Your task to perform on an android device: install app "Google Play services" Image 0: 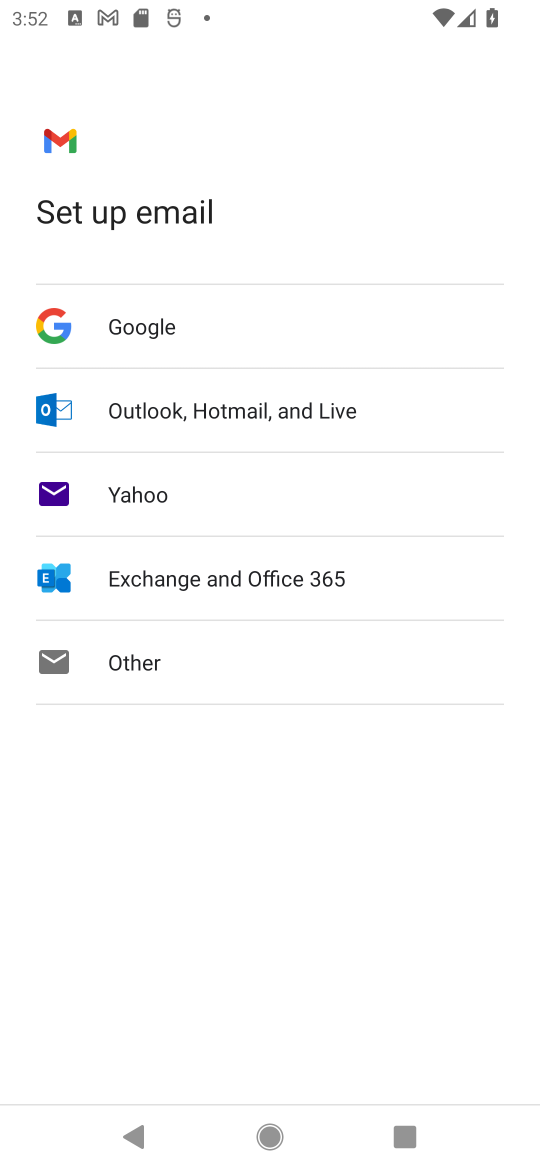
Step 0: press home button
Your task to perform on an android device: install app "Google Play services" Image 1: 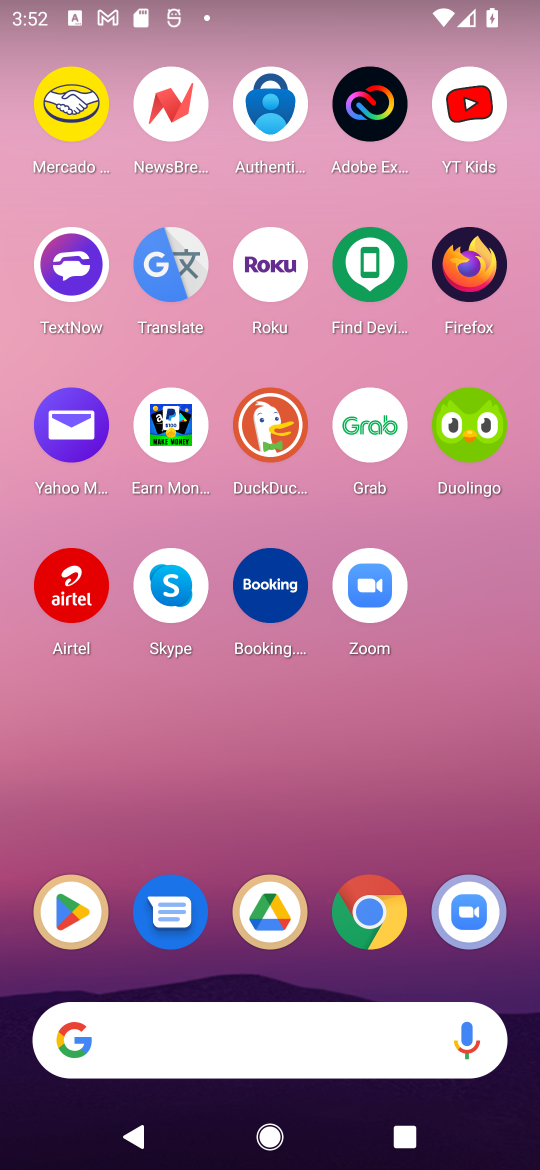
Step 1: click (70, 902)
Your task to perform on an android device: install app "Google Play services" Image 2: 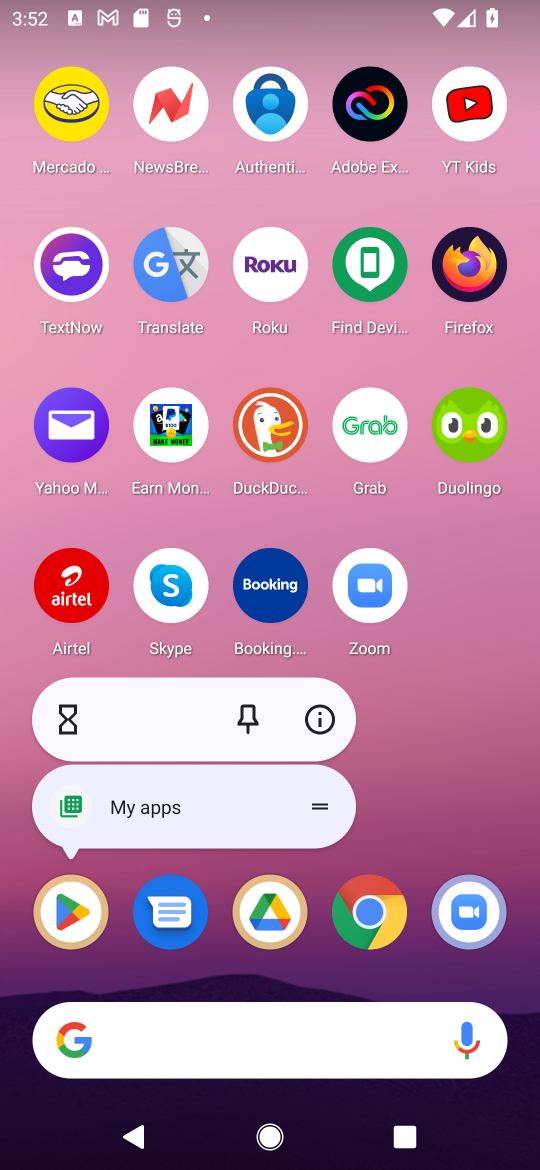
Step 2: click (70, 911)
Your task to perform on an android device: install app "Google Play services" Image 3: 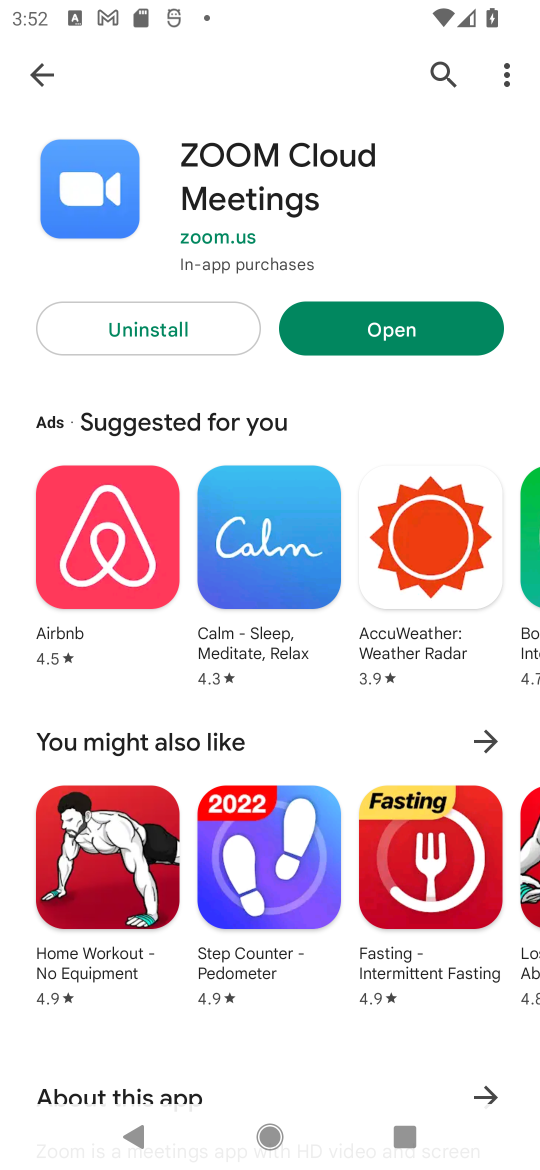
Step 3: click (436, 65)
Your task to perform on an android device: install app "Google Play services" Image 4: 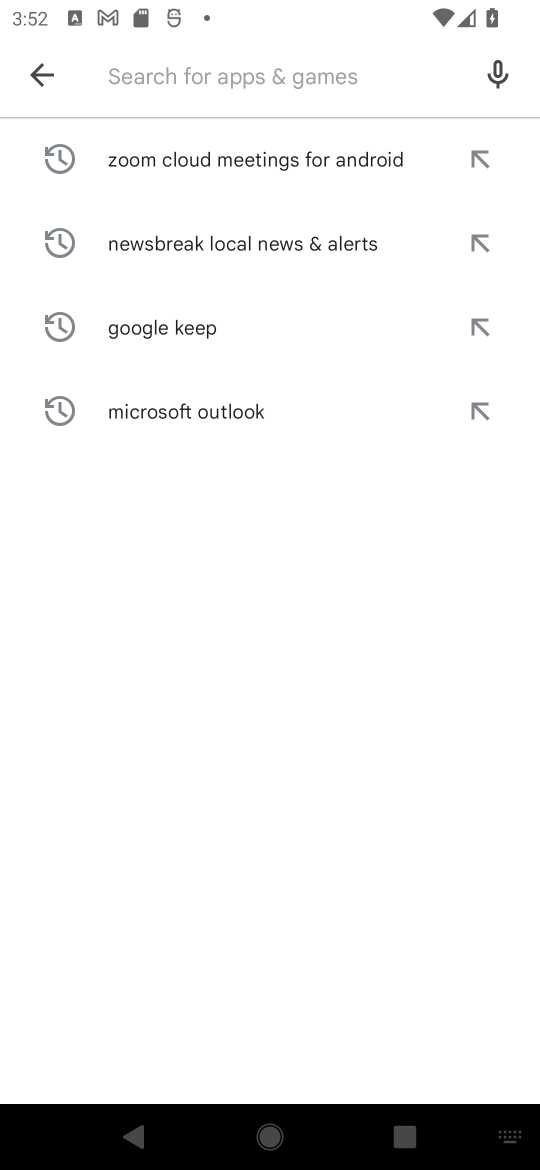
Step 4: click (393, 89)
Your task to perform on an android device: install app "Google Play services" Image 5: 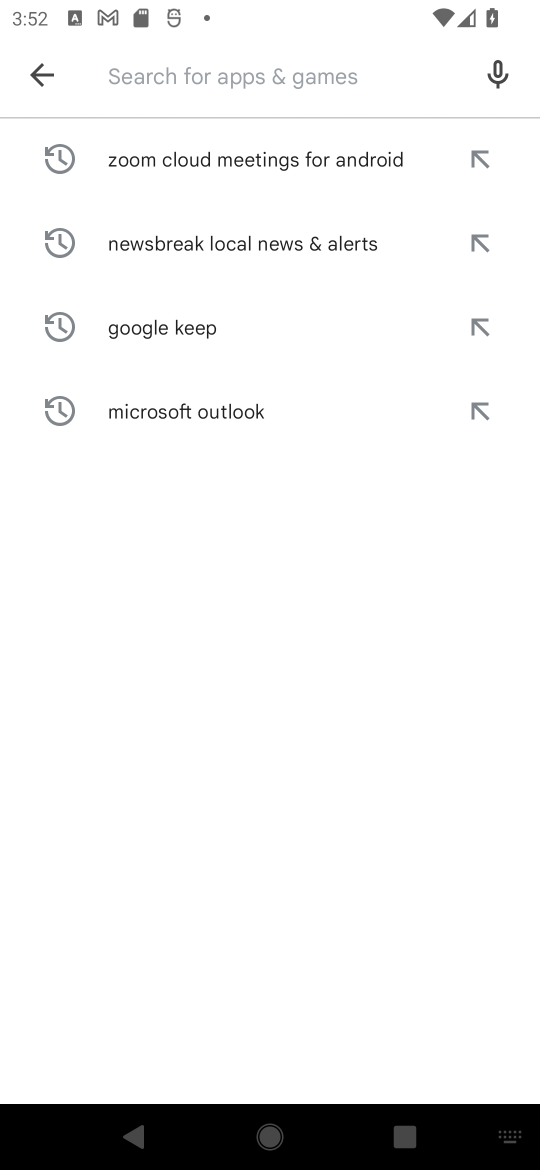
Step 5: type "Google Play services"
Your task to perform on an android device: install app "Google Play services" Image 6: 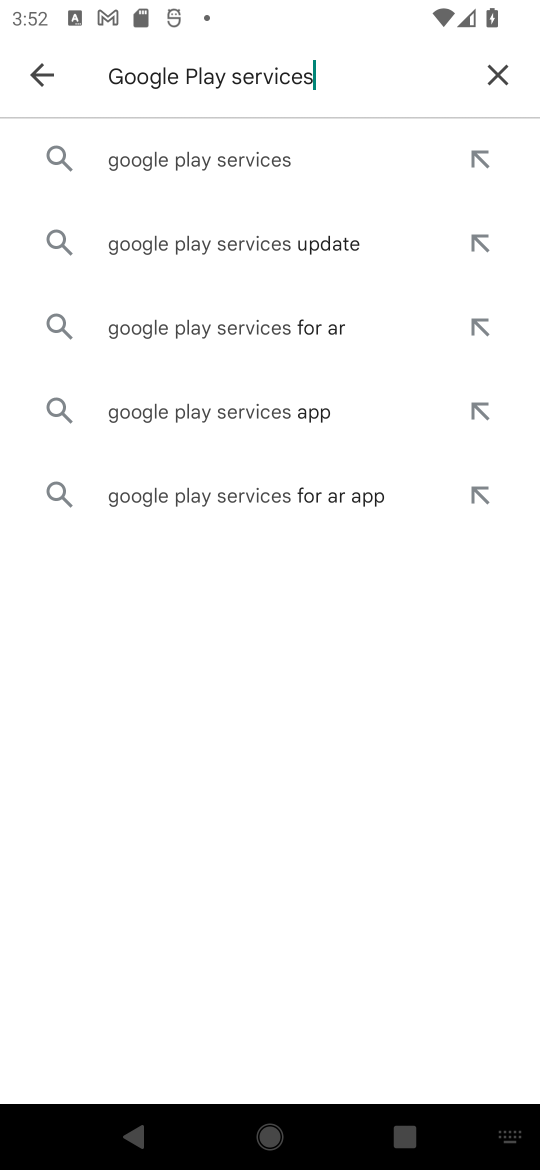
Step 6: click (190, 169)
Your task to perform on an android device: install app "Google Play services" Image 7: 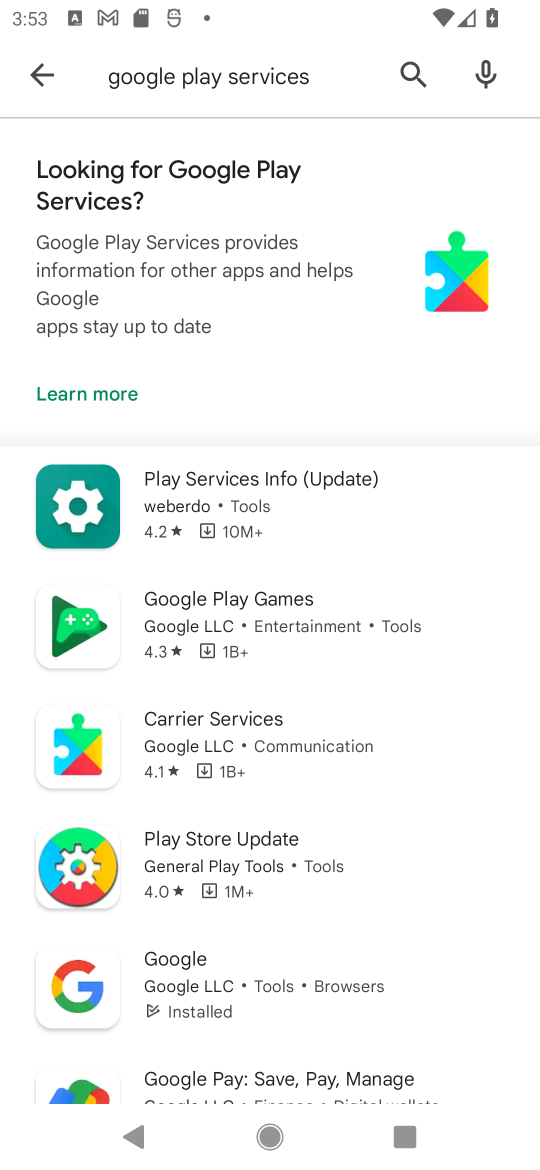
Step 7: drag from (445, 833) to (421, 494)
Your task to perform on an android device: install app "Google Play services" Image 8: 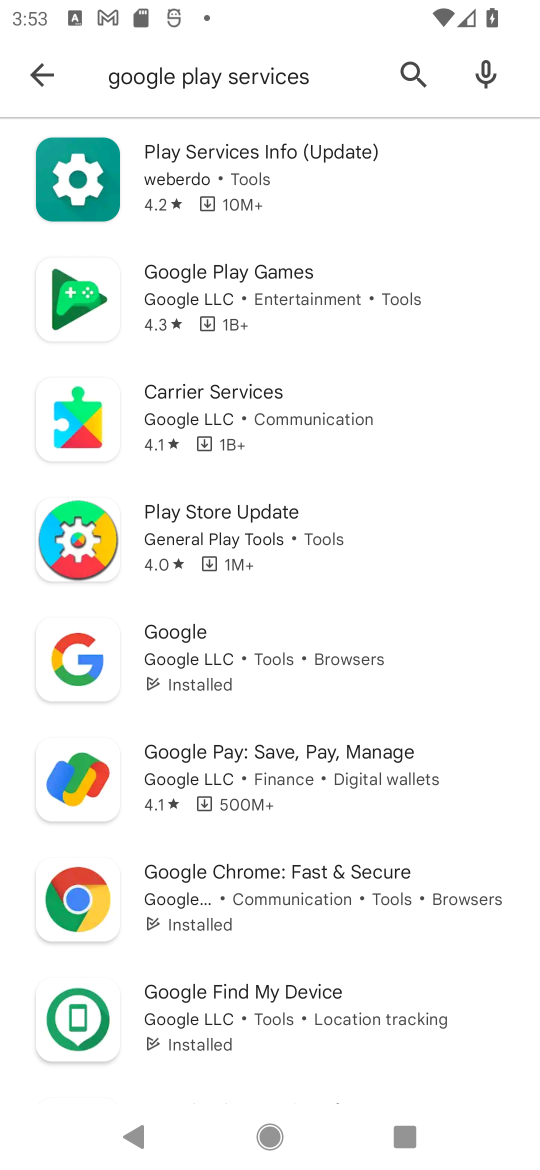
Step 8: drag from (369, 906) to (401, 503)
Your task to perform on an android device: install app "Google Play services" Image 9: 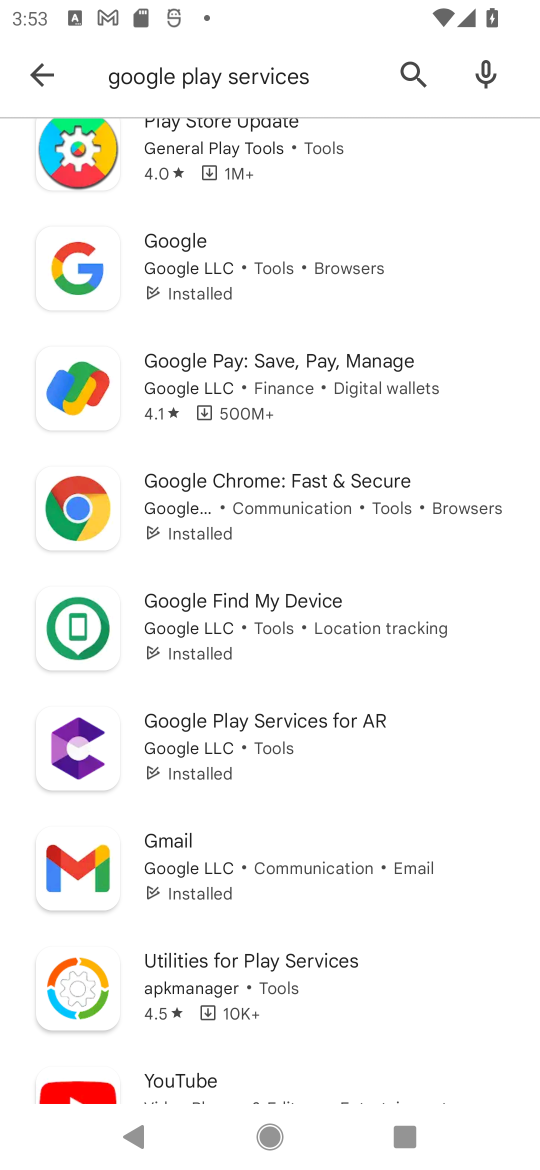
Step 9: click (168, 764)
Your task to perform on an android device: install app "Google Play services" Image 10: 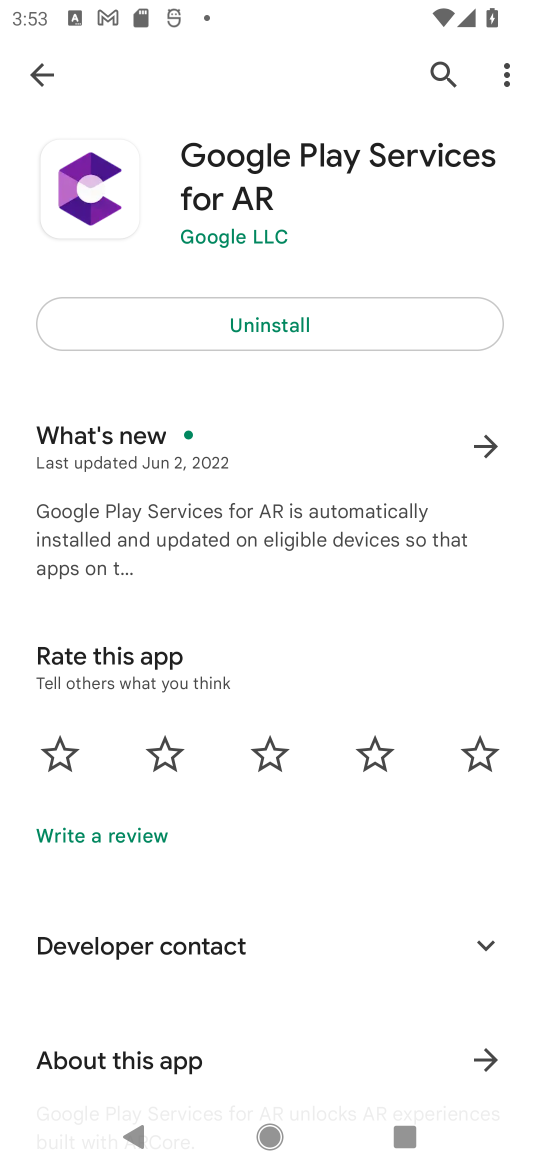
Step 10: task complete